Your task to perform on an android device: check storage Image 0: 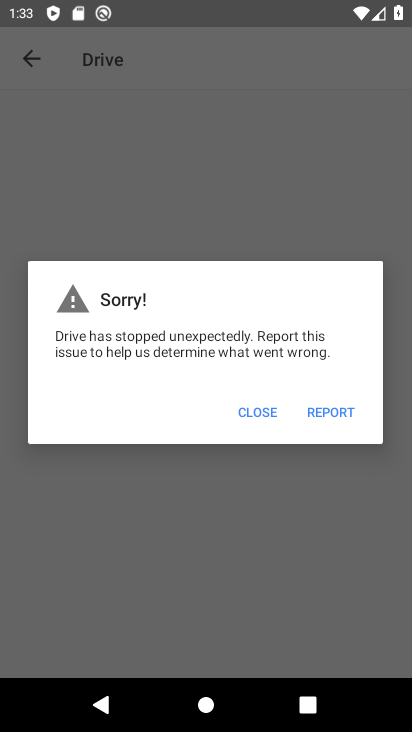
Step 0: press home button
Your task to perform on an android device: check storage Image 1: 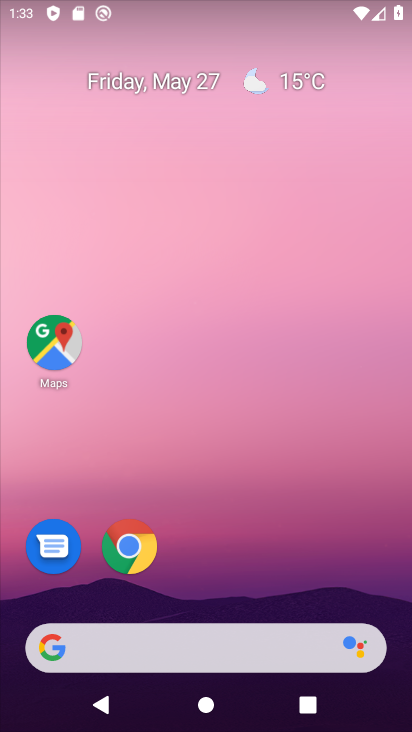
Step 1: drag from (324, 542) to (231, 130)
Your task to perform on an android device: check storage Image 2: 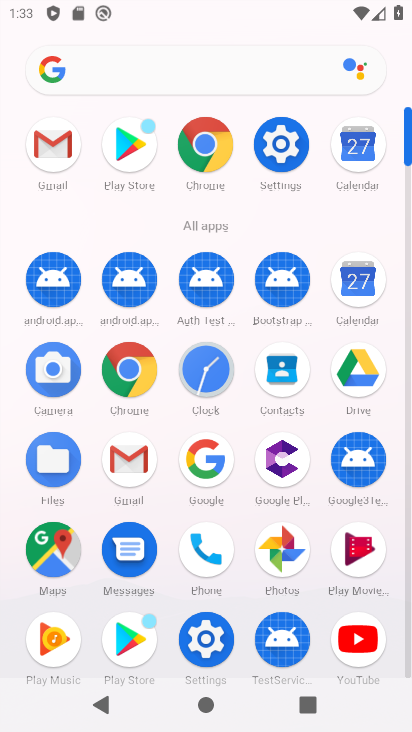
Step 2: click (281, 154)
Your task to perform on an android device: check storage Image 3: 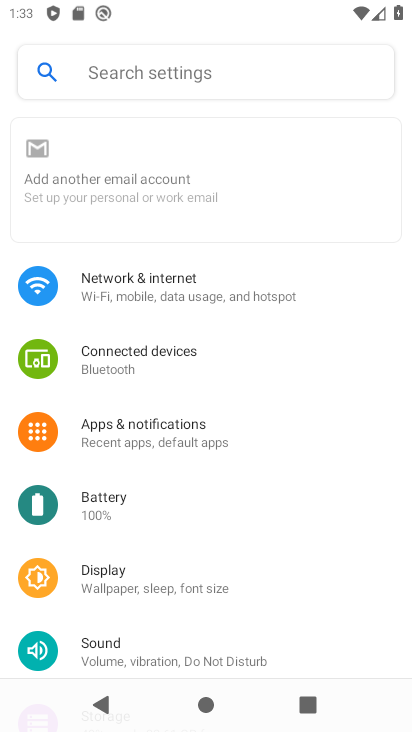
Step 3: drag from (186, 506) to (227, 172)
Your task to perform on an android device: check storage Image 4: 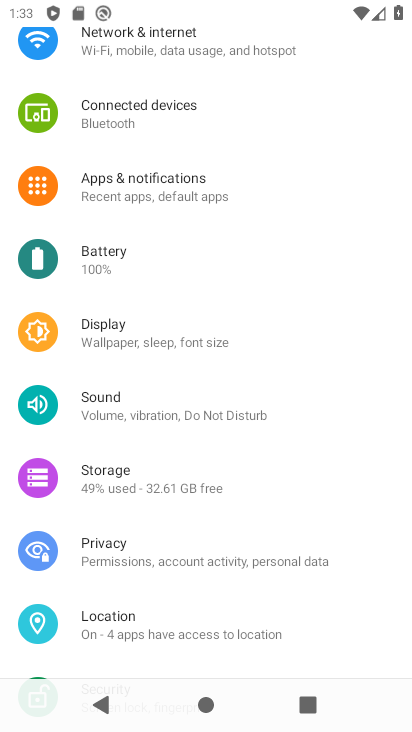
Step 4: click (174, 474)
Your task to perform on an android device: check storage Image 5: 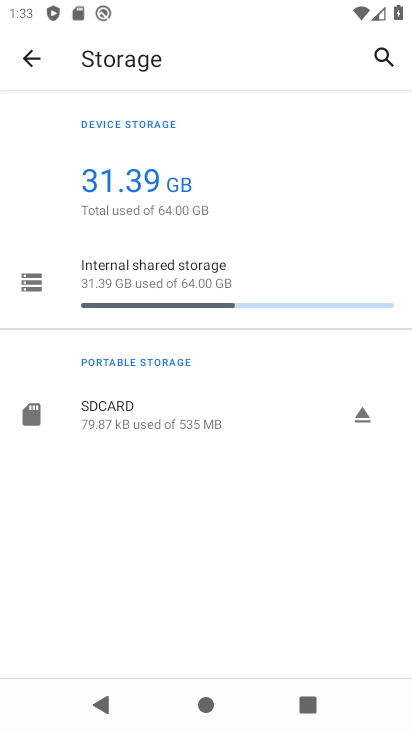
Step 5: click (34, 295)
Your task to perform on an android device: check storage Image 6: 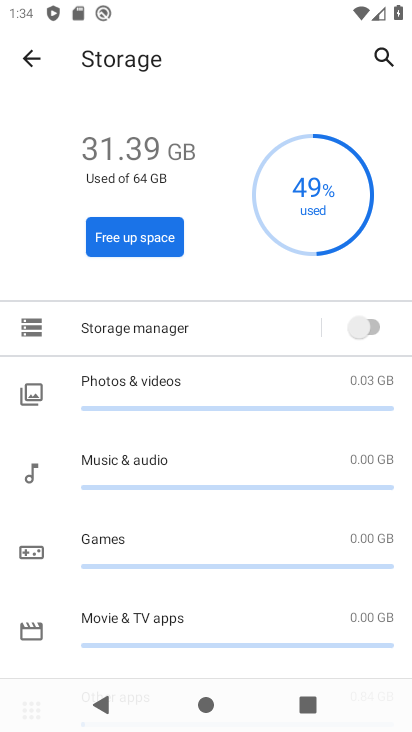
Step 6: click (32, 334)
Your task to perform on an android device: check storage Image 7: 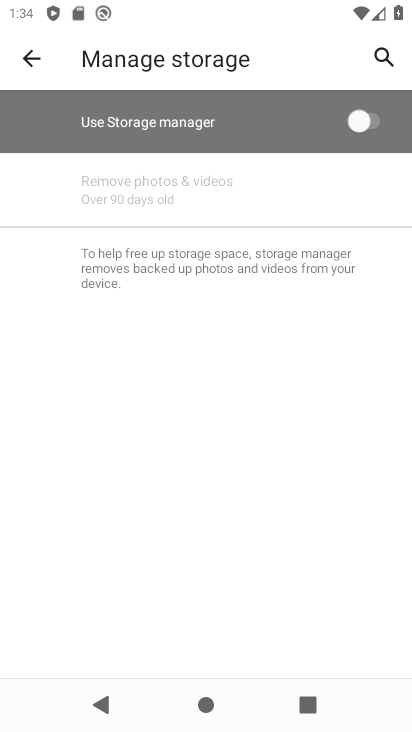
Step 7: task complete